Your task to perform on an android device: Open Google Chrome and click the shortcut for Amazon.com Image 0: 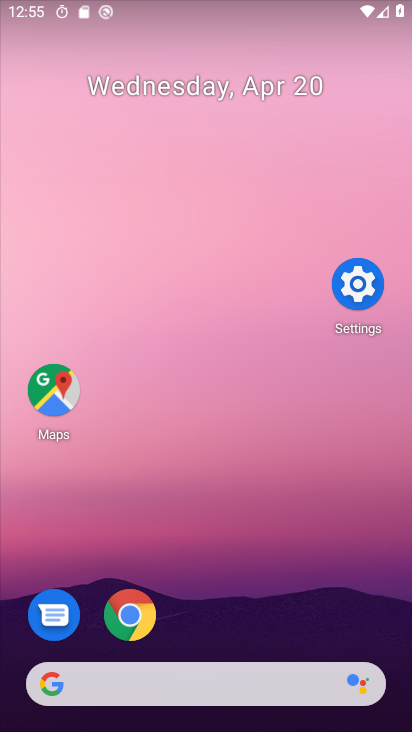
Step 0: drag from (189, 608) to (342, 43)
Your task to perform on an android device: Open Google Chrome and click the shortcut for Amazon.com Image 1: 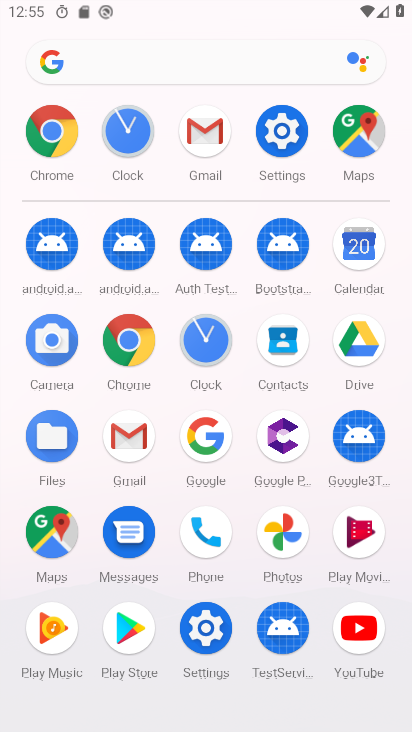
Step 1: click (131, 333)
Your task to perform on an android device: Open Google Chrome and click the shortcut for Amazon.com Image 2: 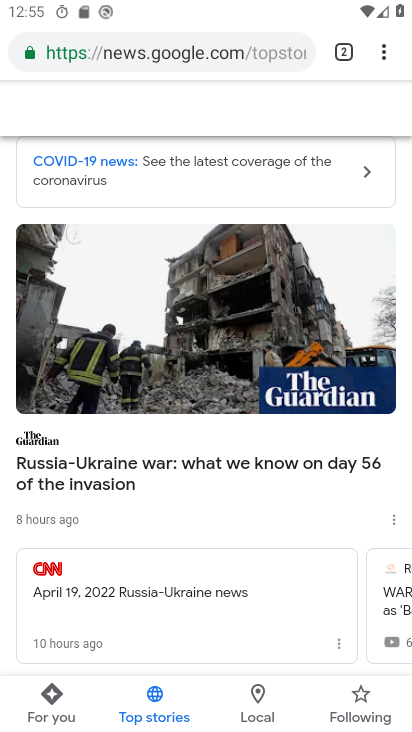
Step 2: click (352, 54)
Your task to perform on an android device: Open Google Chrome and click the shortcut for Amazon.com Image 3: 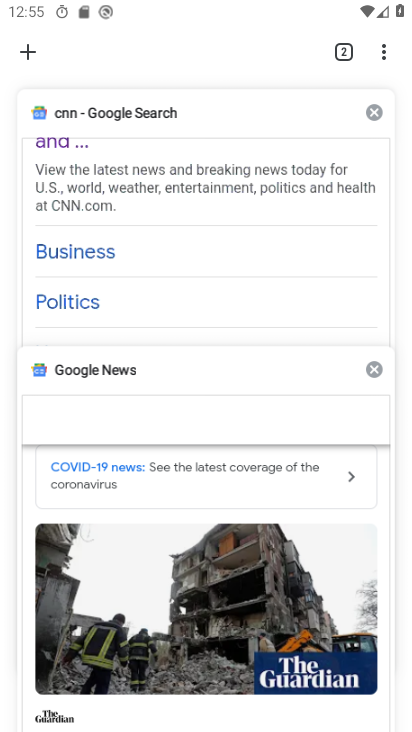
Step 3: click (372, 371)
Your task to perform on an android device: Open Google Chrome and click the shortcut for Amazon.com Image 4: 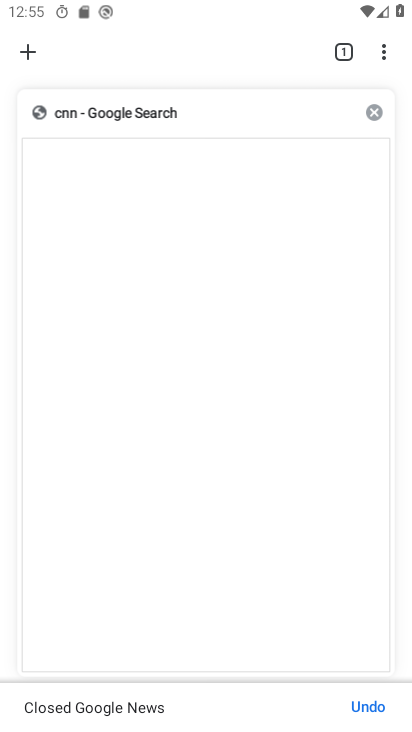
Step 4: click (377, 112)
Your task to perform on an android device: Open Google Chrome and click the shortcut for Amazon.com Image 5: 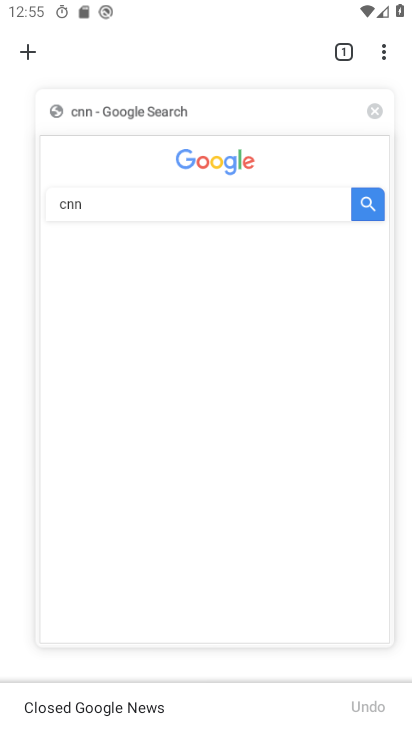
Step 5: click (28, 46)
Your task to perform on an android device: Open Google Chrome and click the shortcut for Amazon.com Image 6: 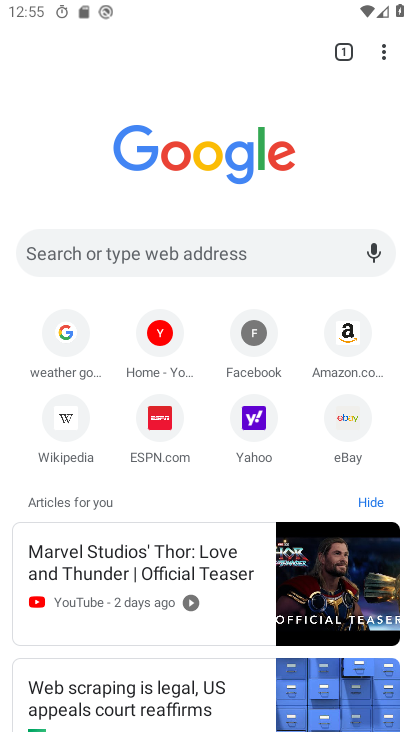
Step 6: click (352, 330)
Your task to perform on an android device: Open Google Chrome and click the shortcut for Amazon.com Image 7: 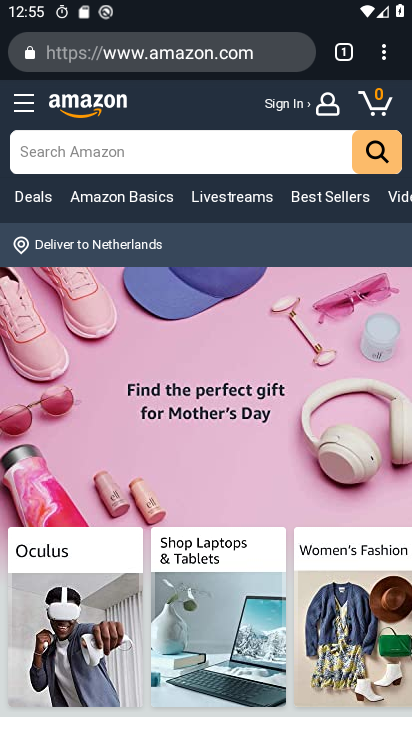
Step 7: task complete